Your task to perform on an android device: Search for sushi restaurants on Maps Image 0: 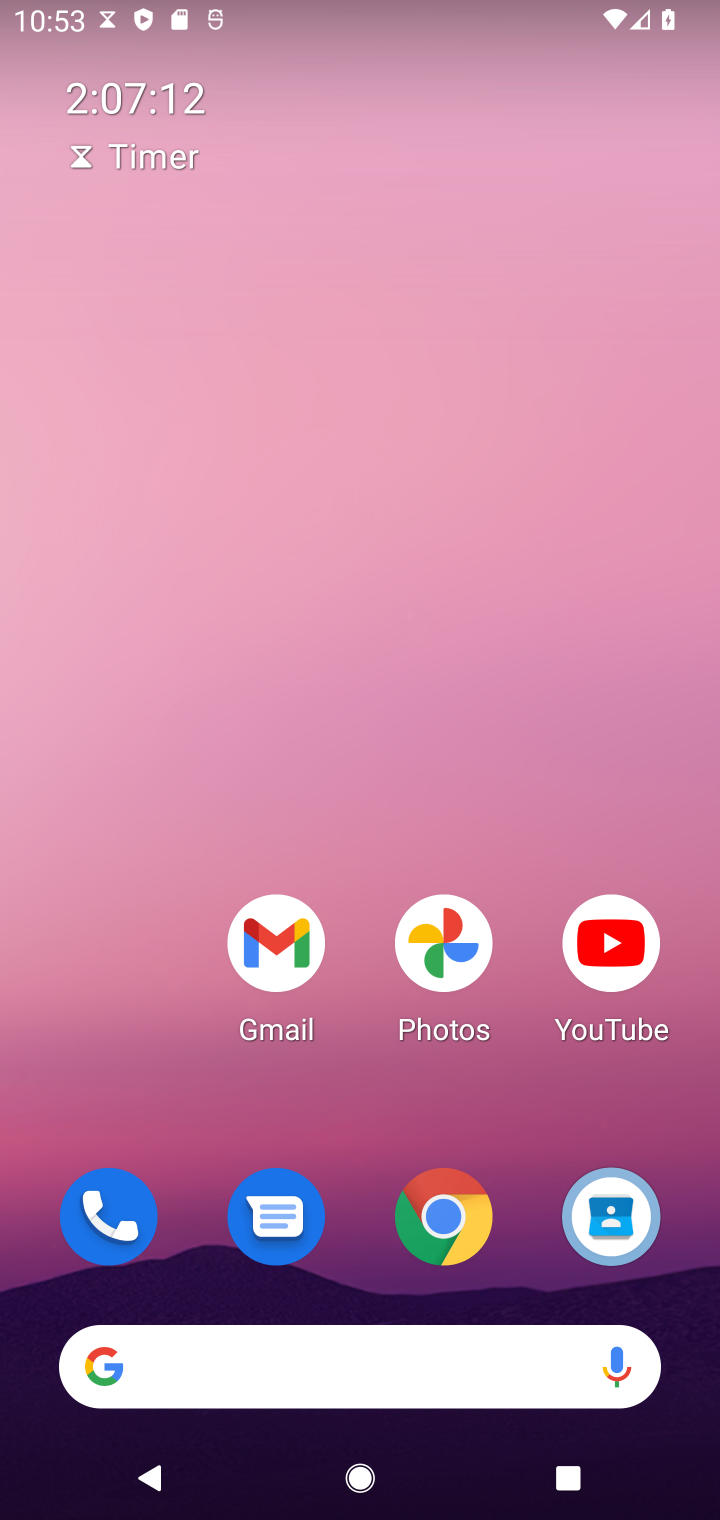
Step 0: drag from (138, 977) to (262, 1)
Your task to perform on an android device: Search for sushi restaurants on Maps Image 1: 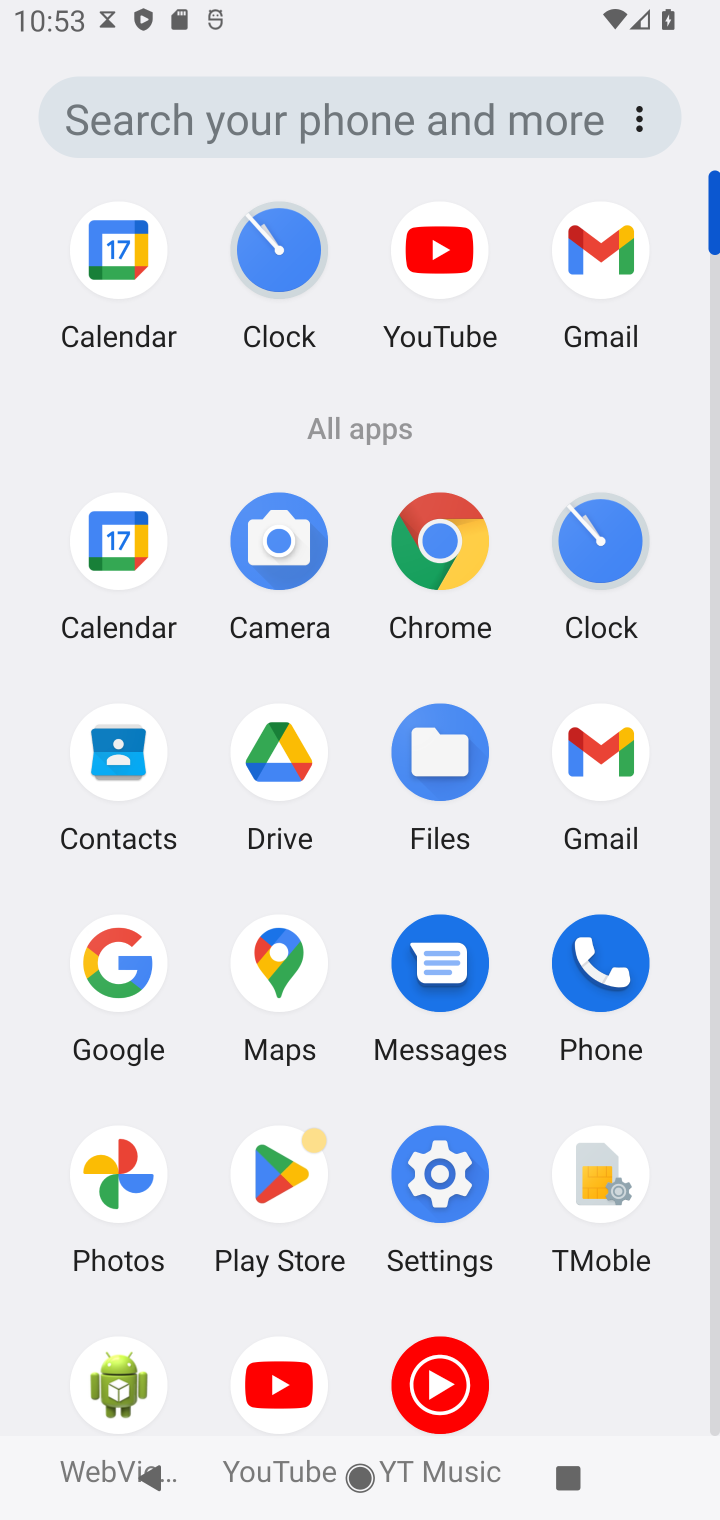
Step 1: click (289, 968)
Your task to perform on an android device: Search for sushi restaurants on Maps Image 2: 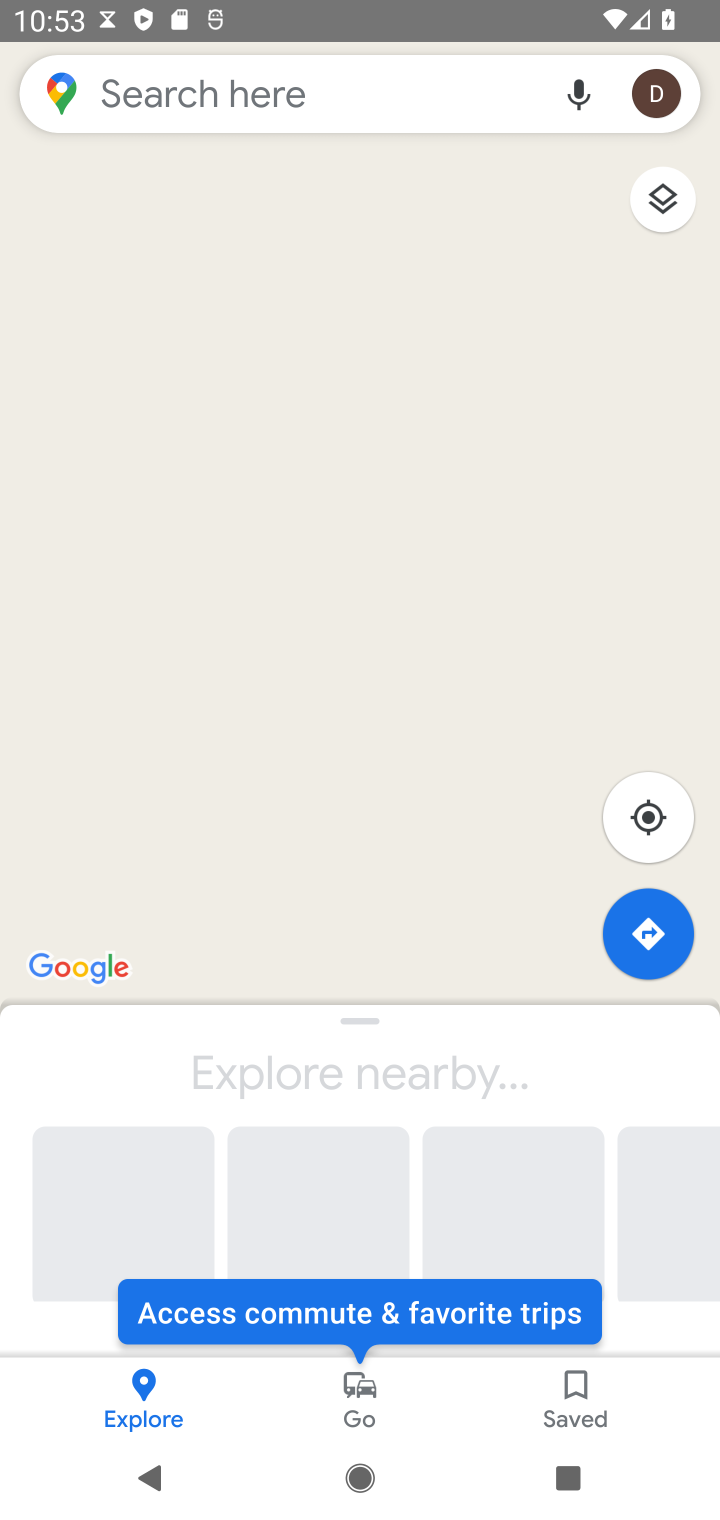
Step 2: click (232, 82)
Your task to perform on an android device: Search for sushi restaurants on Maps Image 3: 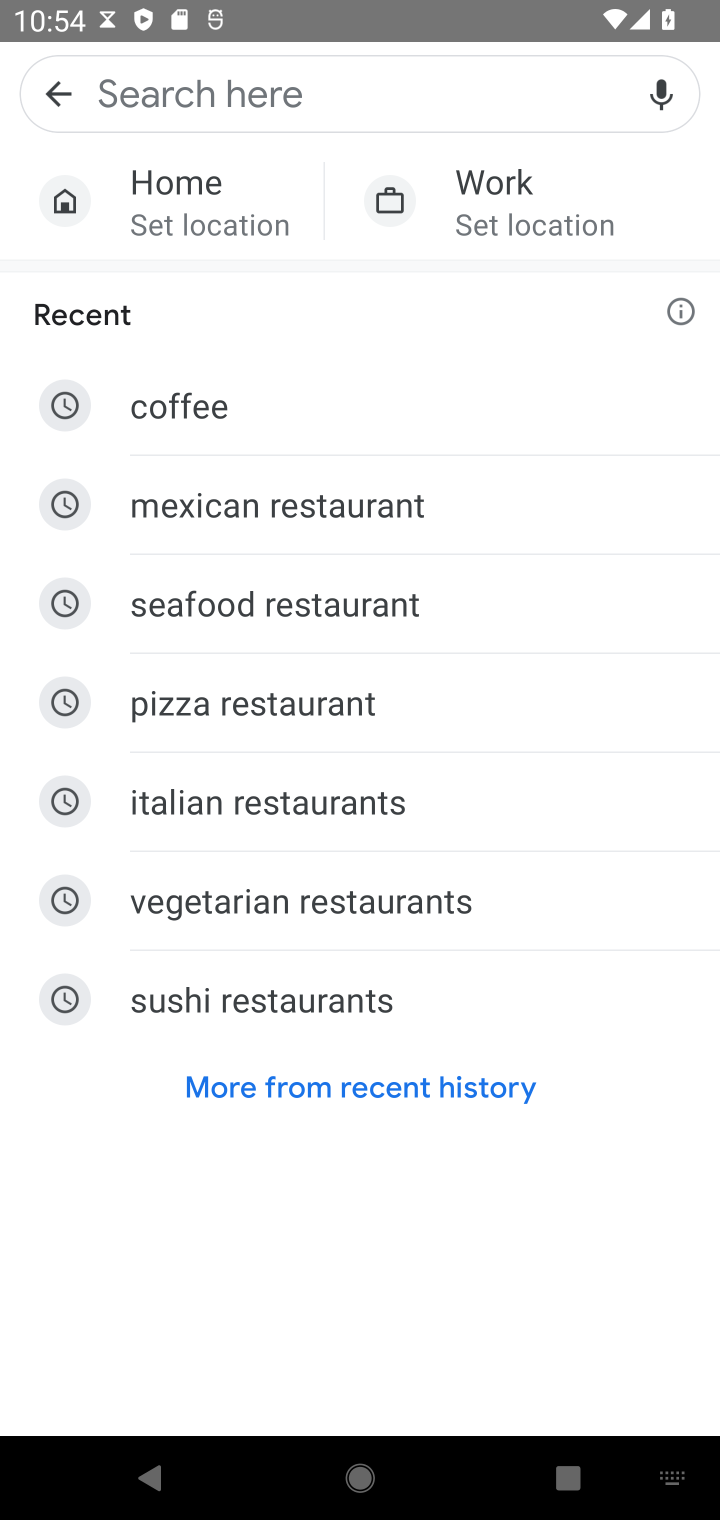
Step 3: click (258, 992)
Your task to perform on an android device: Search for sushi restaurants on Maps Image 4: 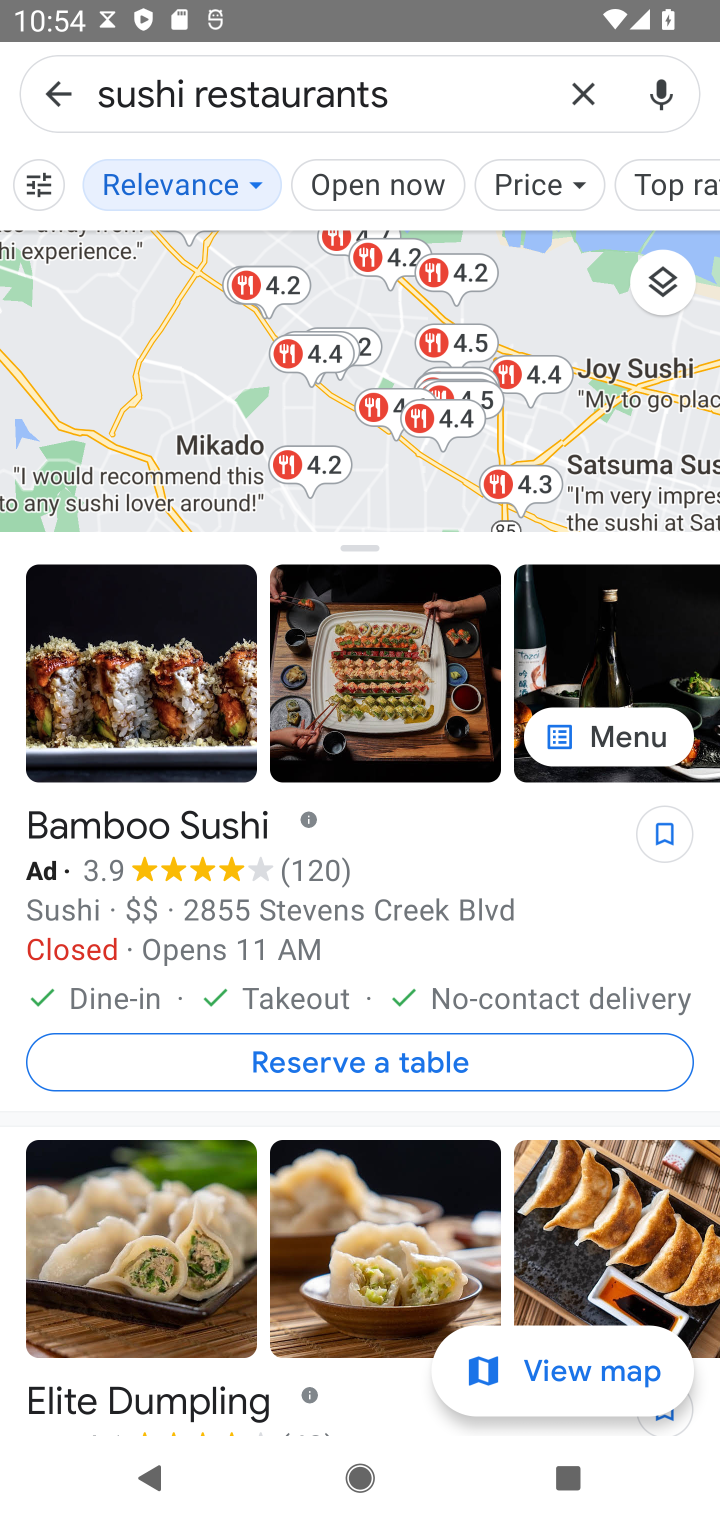
Step 4: task complete